Your task to perform on an android device: Play the latest video from the Washington Post Image 0: 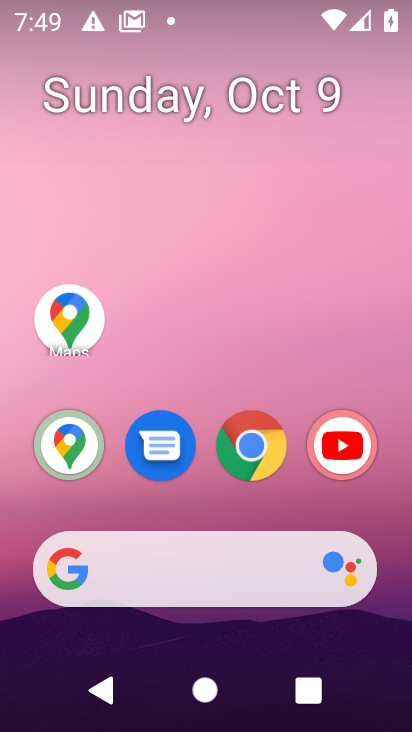
Step 0: drag from (234, 114) to (235, 77)
Your task to perform on an android device: Play the latest video from the Washington Post Image 1: 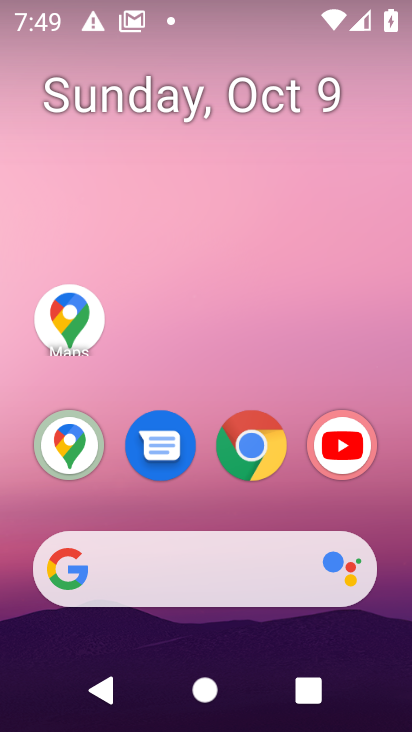
Step 1: drag from (231, 526) to (221, 118)
Your task to perform on an android device: Play the latest video from the Washington Post Image 2: 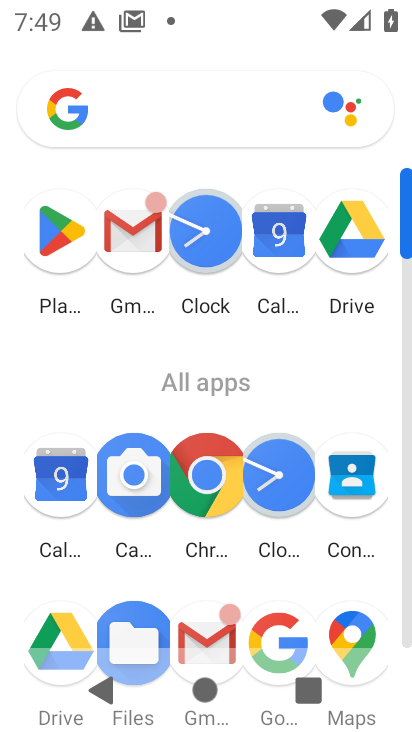
Step 2: click (276, 630)
Your task to perform on an android device: Play the latest video from the Washington Post Image 3: 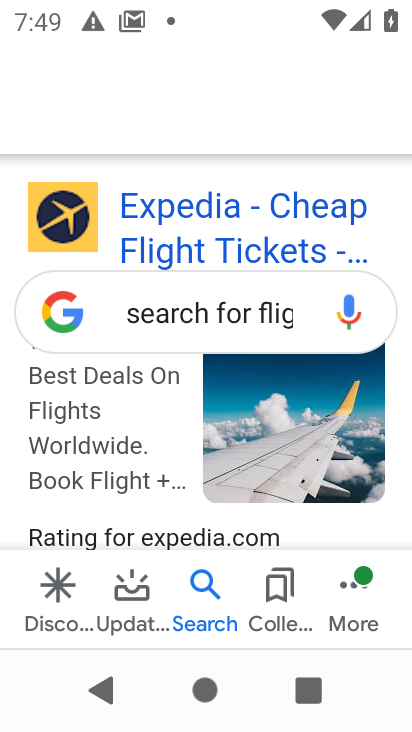
Step 3: click (159, 331)
Your task to perform on an android device: Play the latest video from the Washington Post Image 4: 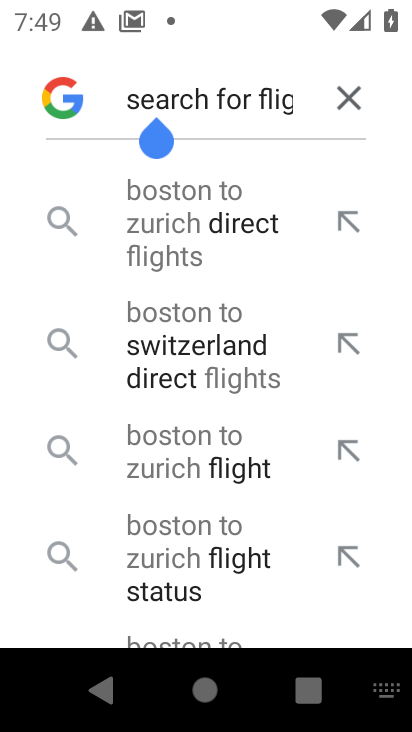
Step 4: click (346, 107)
Your task to perform on an android device: Play the latest video from the Washington Post Image 5: 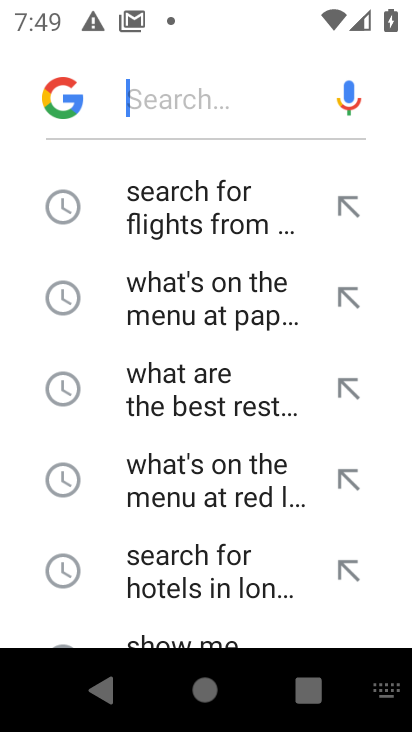
Step 5: type "Play the latest video from the Washington Post"
Your task to perform on an android device: Play the latest video from the Washington Post Image 6: 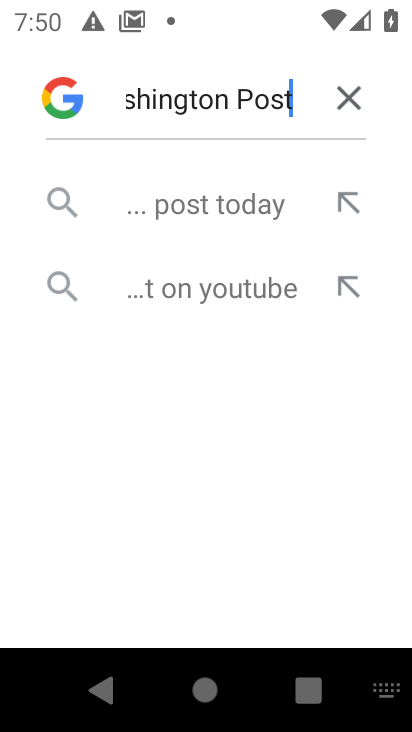
Step 6: click (234, 199)
Your task to perform on an android device: Play the latest video from the Washington Post Image 7: 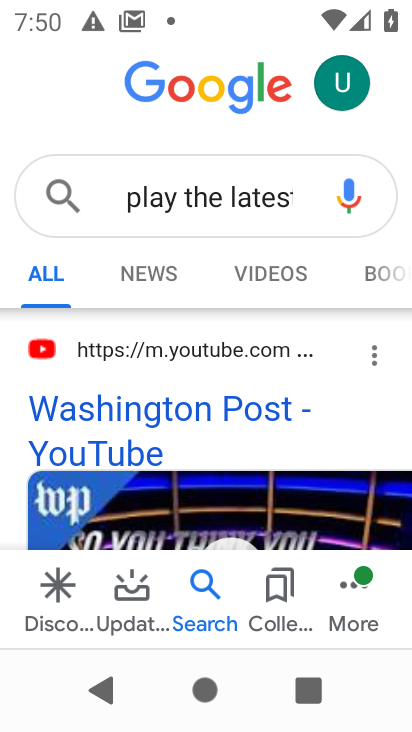
Step 7: click (106, 438)
Your task to perform on an android device: Play the latest video from the Washington Post Image 8: 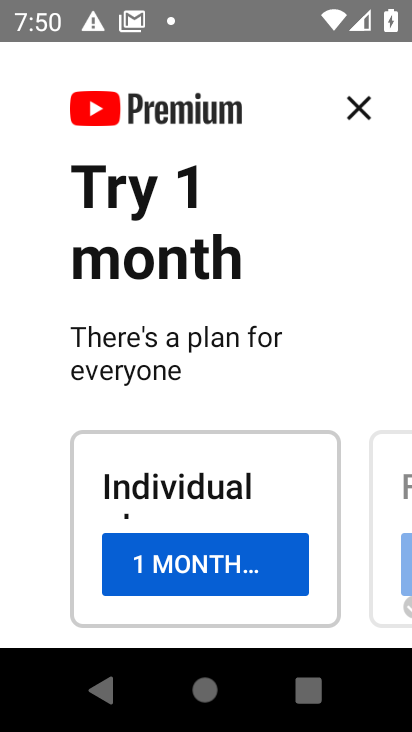
Step 8: click (361, 114)
Your task to perform on an android device: Play the latest video from the Washington Post Image 9: 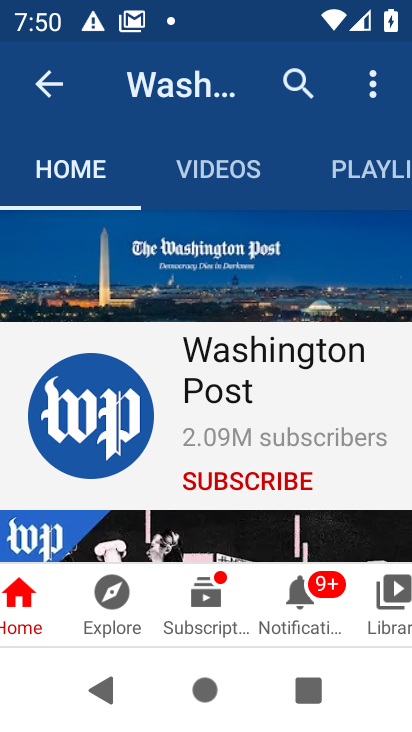
Step 9: task complete